Your task to perform on an android device: make emails show in primary in the gmail app Image 0: 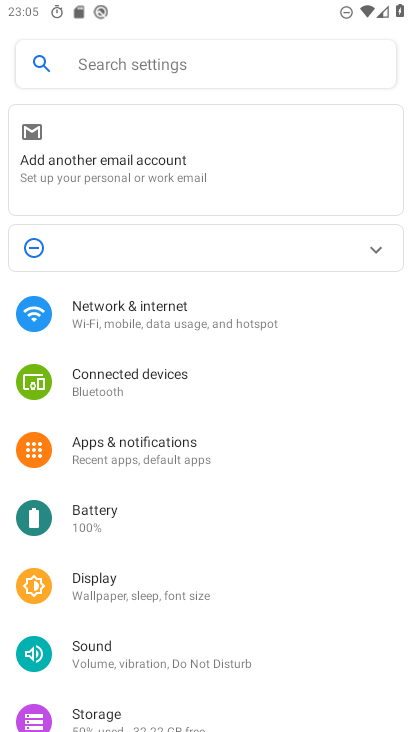
Step 0: press home button
Your task to perform on an android device: make emails show in primary in the gmail app Image 1: 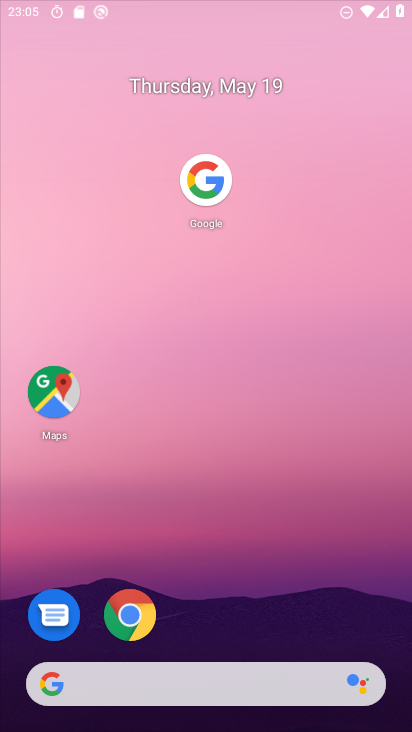
Step 1: drag from (227, 595) to (292, 45)
Your task to perform on an android device: make emails show in primary in the gmail app Image 2: 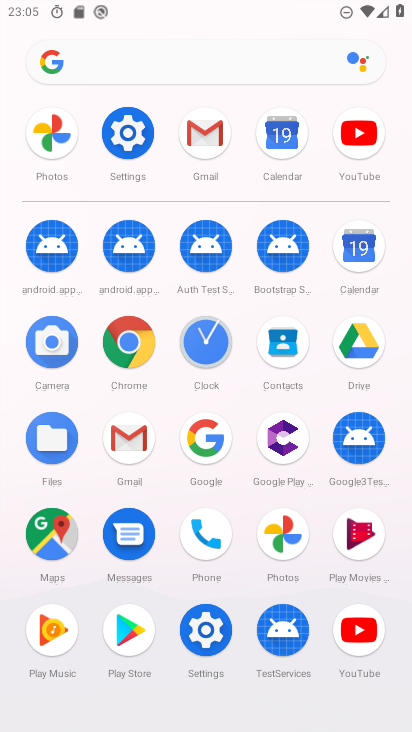
Step 2: click (210, 143)
Your task to perform on an android device: make emails show in primary in the gmail app Image 3: 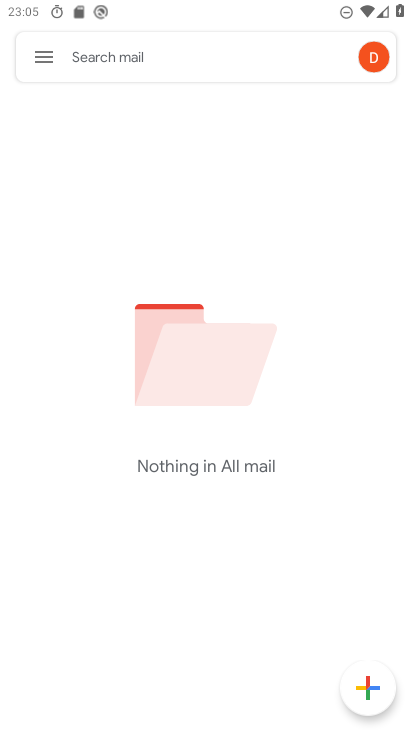
Step 3: click (43, 59)
Your task to perform on an android device: make emails show in primary in the gmail app Image 4: 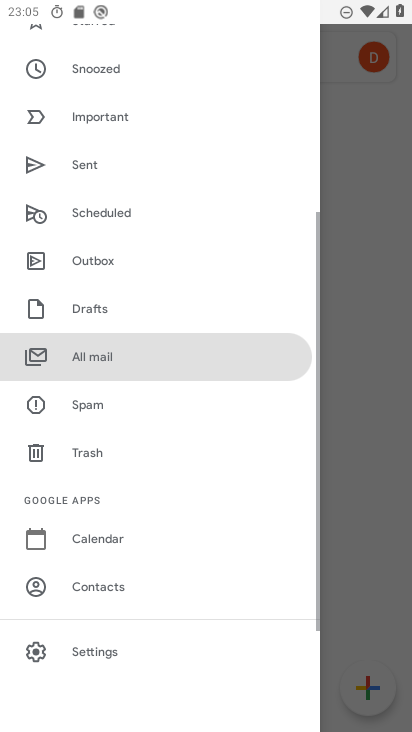
Step 4: click (85, 664)
Your task to perform on an android device: make emails show in primary in the gmail app Image 5: 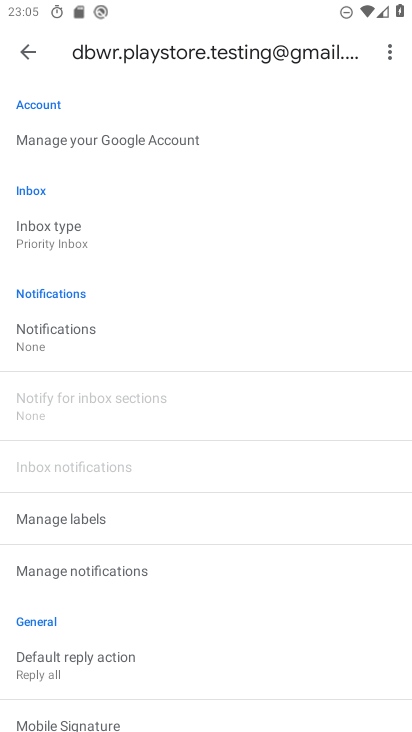
Step 5: click (74, 244)
Your task to perform on an android device: make emails show in primary in the gmail app Image 6: 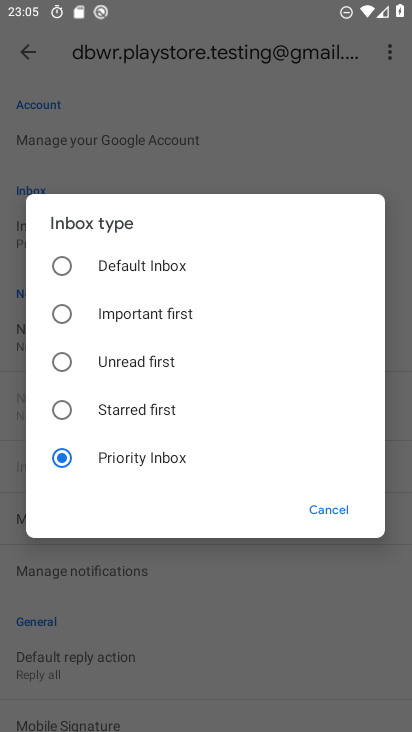
Step 6: click (57, 265)
Your task to perform on an android device: make emails show in primary in the gmail app Image 7: 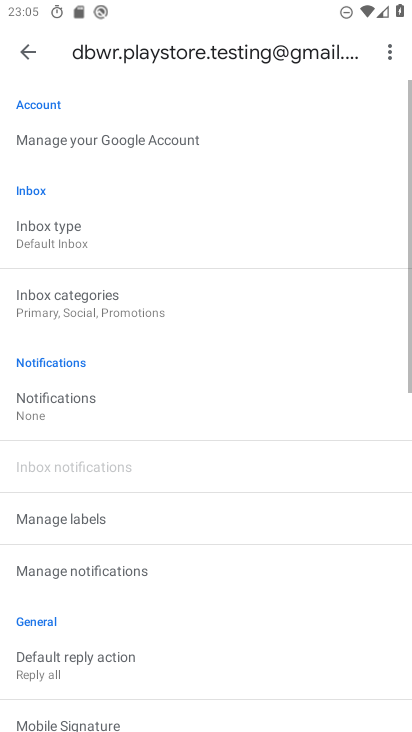
Step 7: click (96, 306)
Your task to perform on an android device: make emails show in primary in the gmail app Image 8: 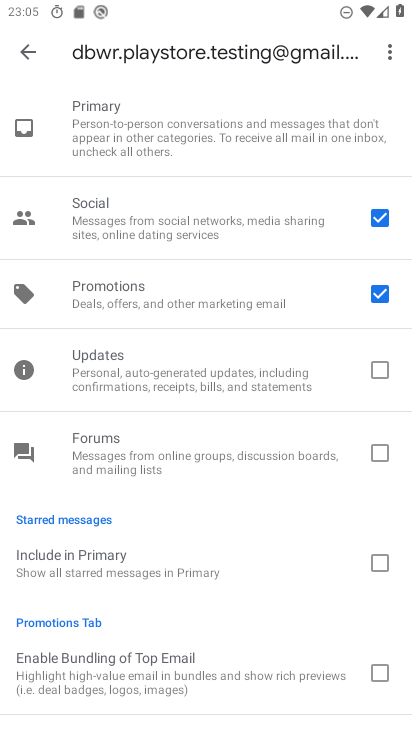
Step 8: click (383, 296)
Your task to perform on an android device: make emails show in primary in the gmail app Image 9: 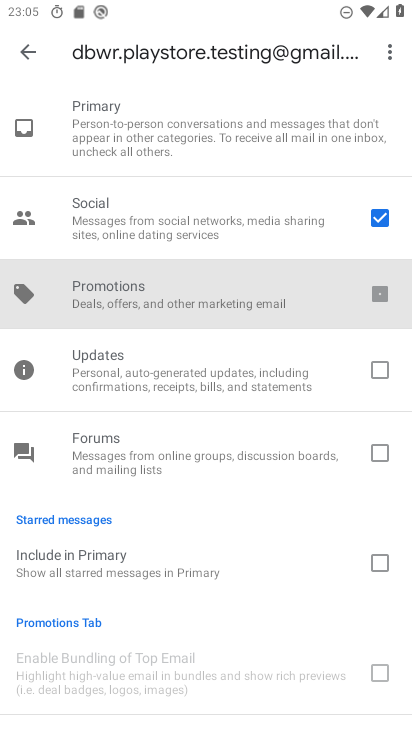
Step 9: click (360, 220)
Your task to perform on an android device: make emails show in primary in the gmail app Image 10: 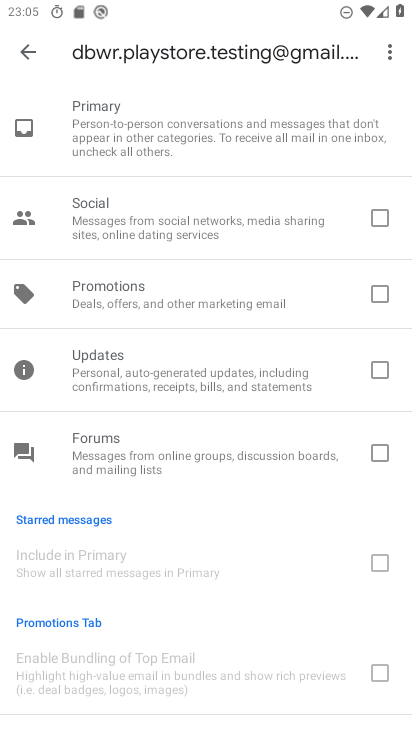
Step 10: task complete